Your task to perform on an android device: read, delete, or share a saved page in the chrome app Image 0: 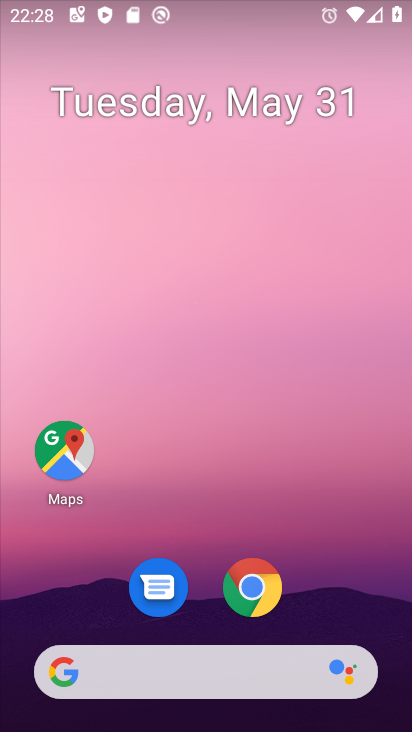
Step 0: drag from (368, 617) to (377, 271)
Your task to perform on an android device: read, delete, or share a saved page in the chrome app Image 1: 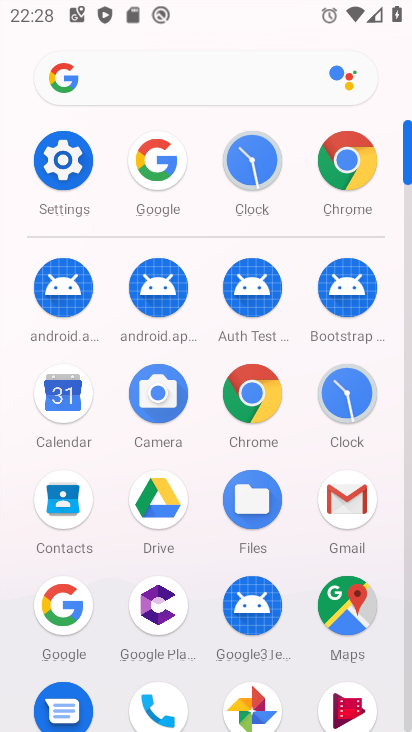
Step 1: click (248, 414)
Your task to perform on an android device: read, delete, or share a saved page in the chrome app Image 2: 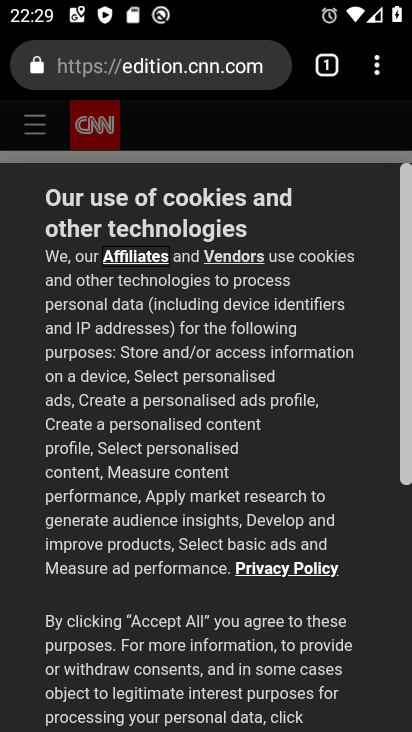
Step 2: click (380, 67)
Your task to perform on an android device: read, delete, or share a saved page in the chrome app Image 3: 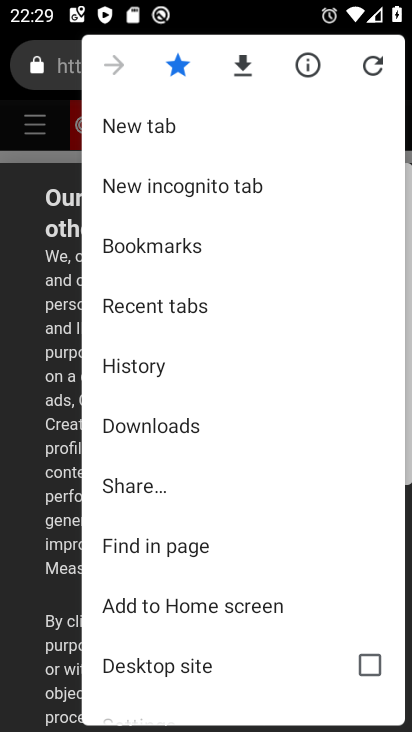
Step 3: click (203, 426)
Your task to perform on an android device: read, delete, or share a saved page in the chrome app Image 4: 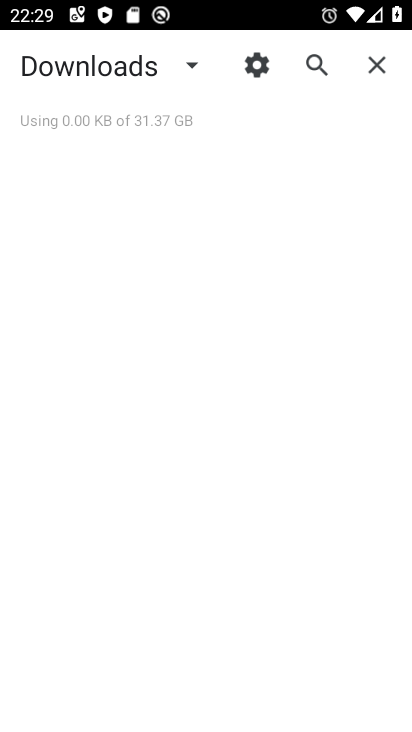
Step 4: task complete